Your task to perform on an android device: choose inbox layout in the gmail app Image 0: 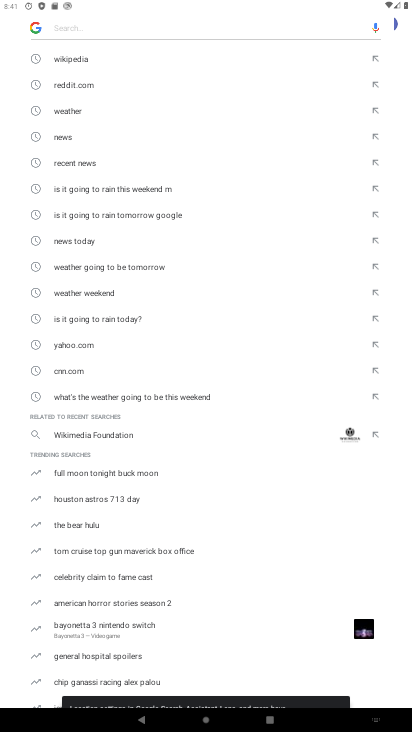
Step 0: press home button
Your task to perform on an android device: choose inbox layout in the gmail app Image 1: 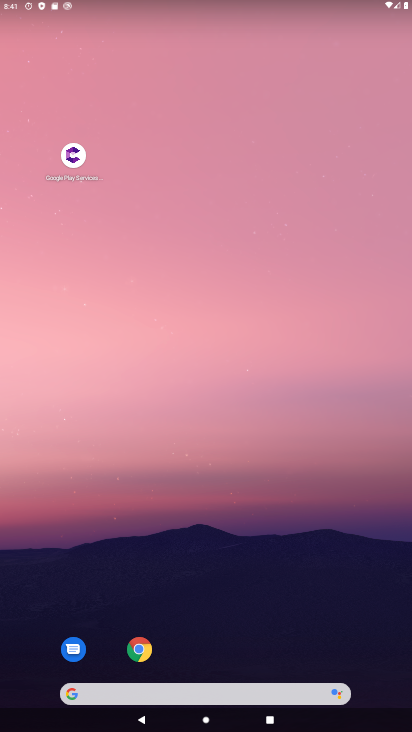
Step 1: drag from (275, 690) to (324, 69)
Your task to perform on an android device: choose inbox layout in the gmail app Image 2: 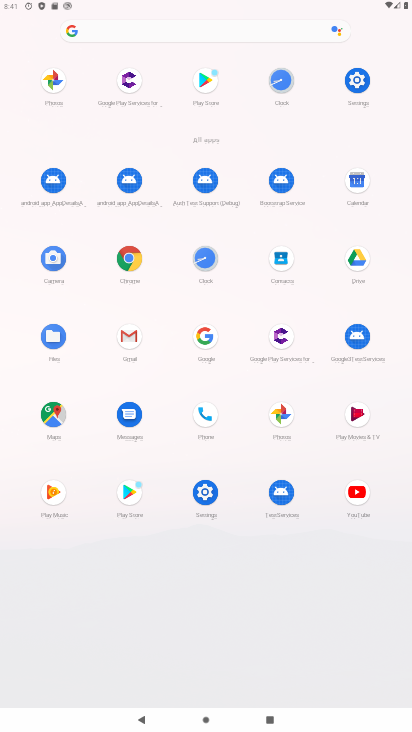
Step 2: click (127, 334)
Your task to perform on an android device: choose inbox layout in the gmail app Image 3: 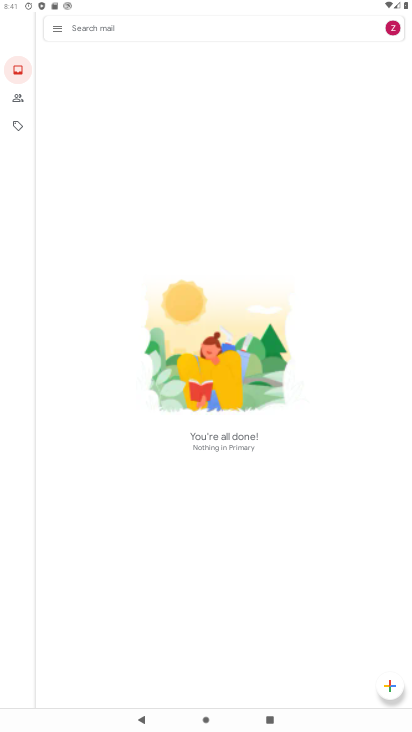
Step 3: click (388, 27)
Your task to perform on an android device: choose inbox layout in the gmail app Image 4: 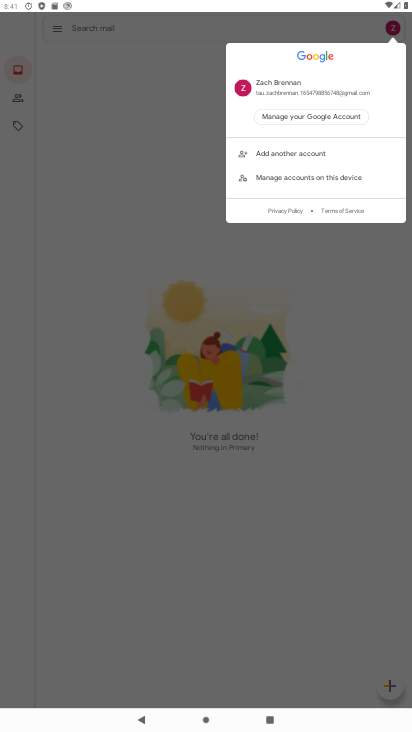
Step 4: click (282, 427)
Your task to perform on an android device: choose inbox layout in the gmail app Image 5: 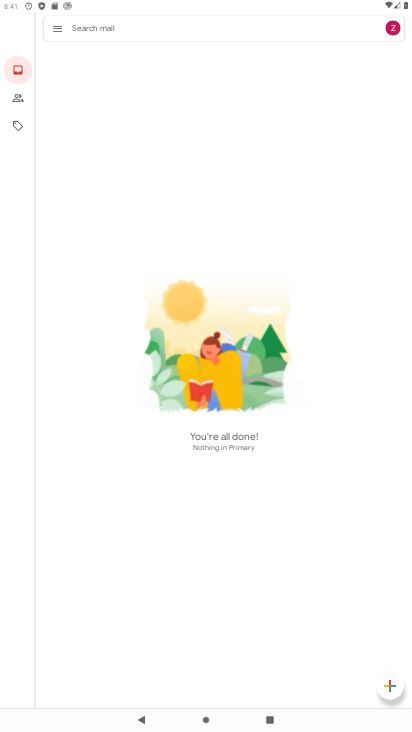
Step 5: click (19, 99)
Your task to perform on an android device: choose inbox layout in the gmail app Image 6: 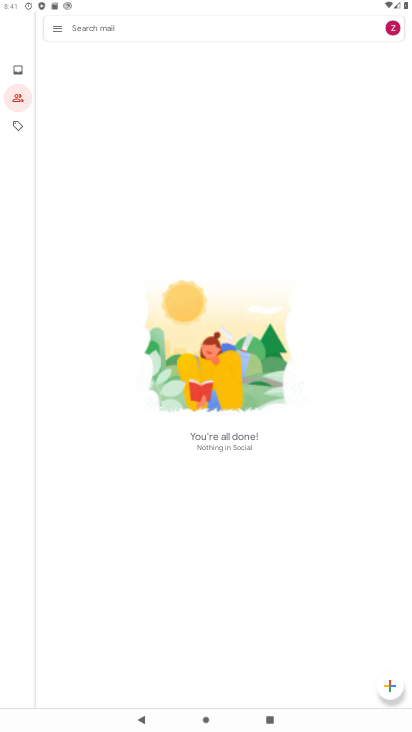
Step 6: click (16, 116)
Your task to perform on an android device: choose inbox layout in the gmail app Image 7: 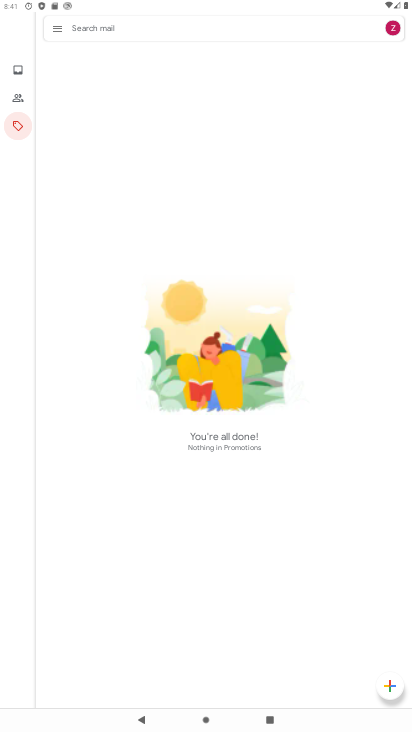
Step 7: click (7, 77)
Your task to perform on an android device: choose inbox layout in the gmail app Image 8: 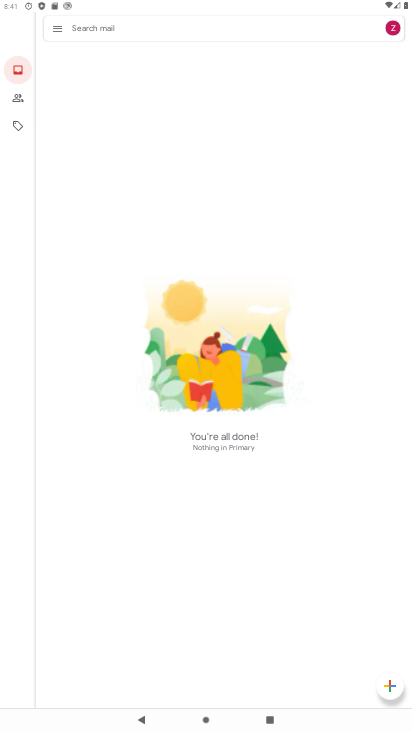
Step 8: click (53, 29)
Your task to perform on an android device: choose inbox layout in the gmail app Image 9: 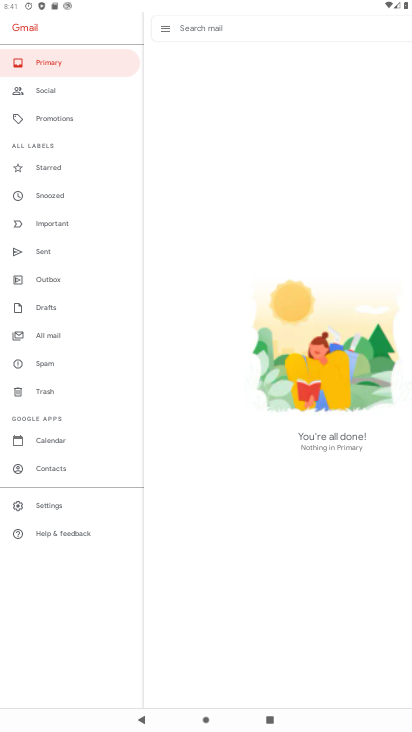
Step 9: click (53, 499)
Your task to perform on an android device: choose inbox layout in the gmail app Image 10: 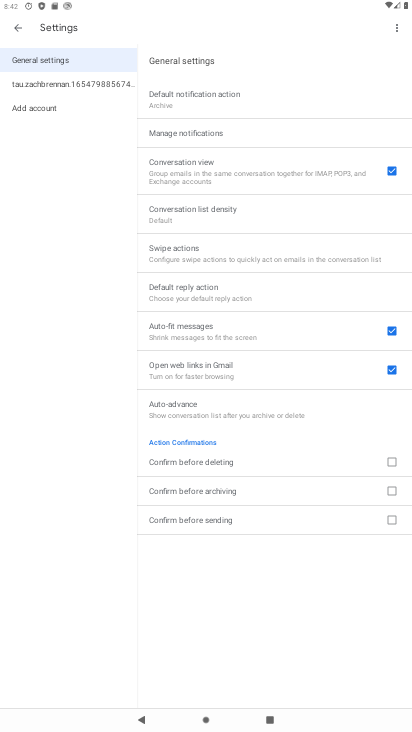
Step 10: click (112, 77)
Your task to perform on an android device: choose inbox layout in the gmail app Image 11: 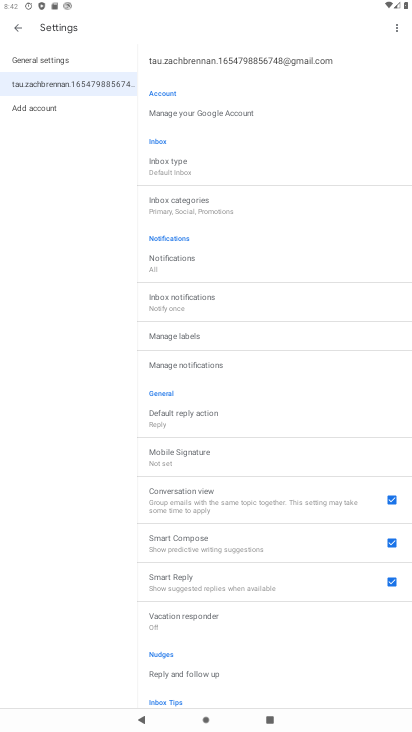
Step 11: click (210, 173)
Your task to perform on an android device: choose inbox layout in the gmail app Image 12: 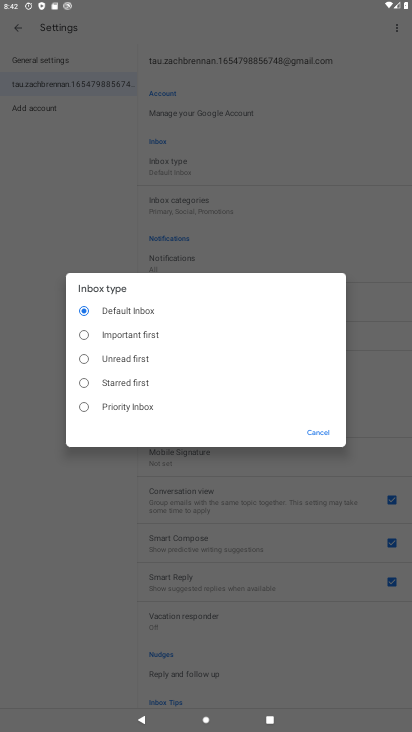
Step 12: click (82, 410)
Your task to perform on an android device: choose inbox layout in the gmail app Image 13: 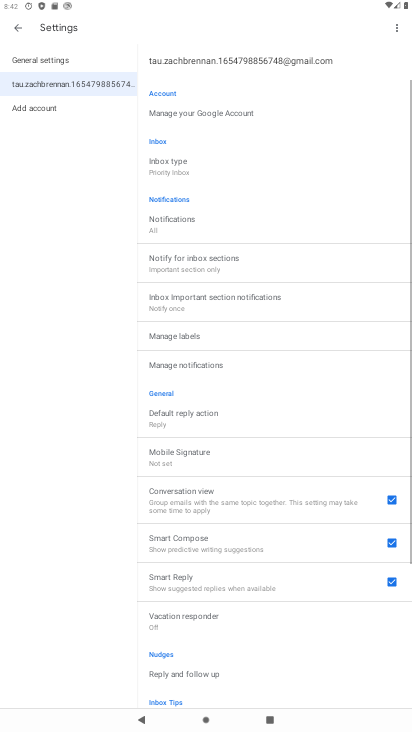
Step 13: task complete